Your task to perform on an android device: Is it going to rain tomorrow? Image 0: 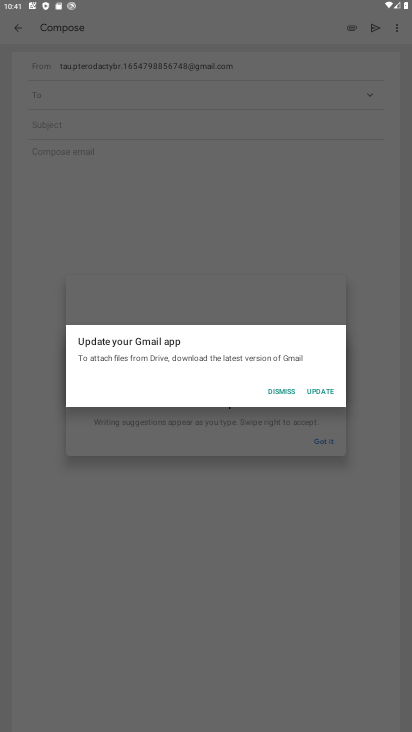
Step 0: press home button
Your task to perform on an android device: Is it going to rain tomorrow? Image 1: 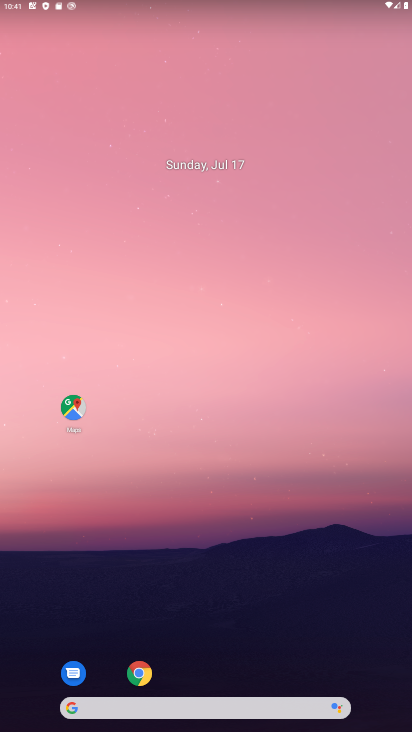
Step 1: click (74, 407)
Your task to perform on an android device: Is it going to rain tomorrow? Image 2: 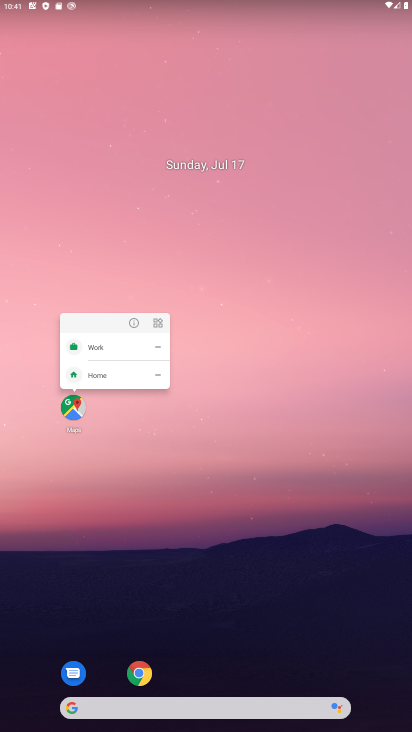
Step 2: click (74, 408)
Your task to perform on an android device: Is it going to rain tomorrow? Image 3: 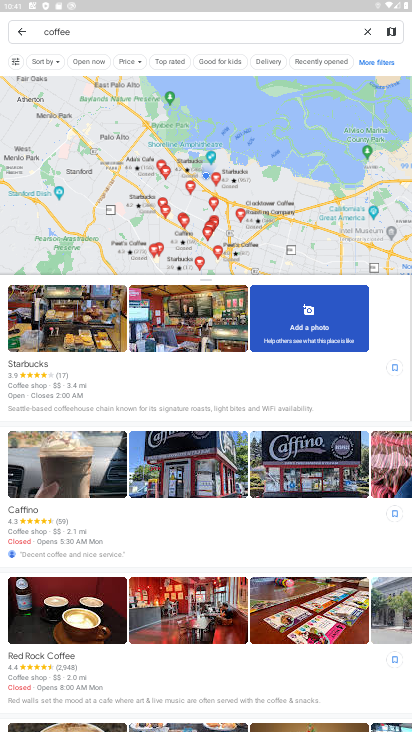
Step 3: click (364, 30)
Your task to perform on an android device: Is it going to rain tomorrow? Image 4: 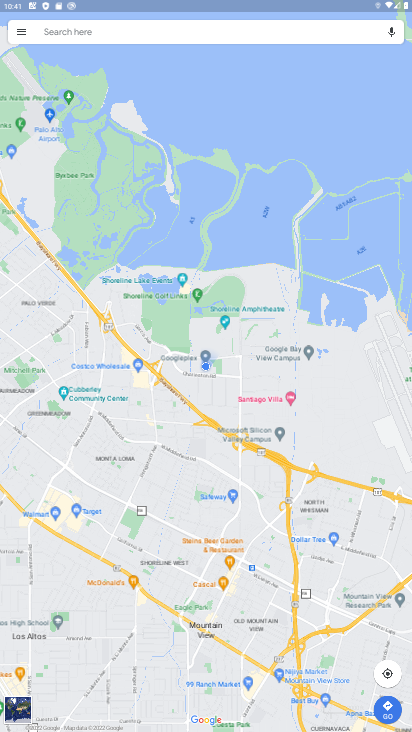
Step 4: click (320, 38)
Your task to perform on an android device: Is it going to rain tomorrow? Image 5: 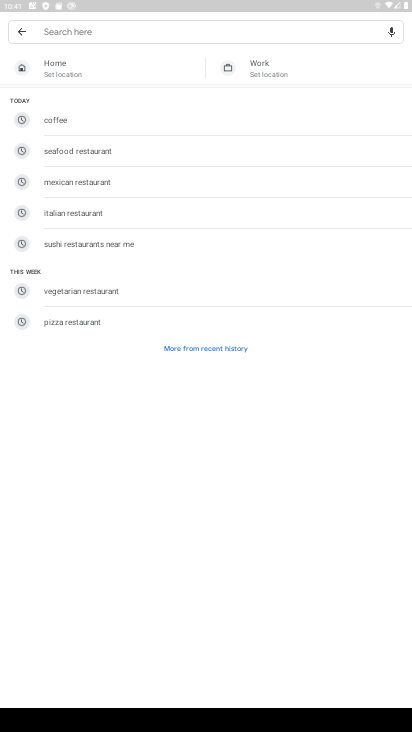
Step 5: type "is it going to rain tomorrow"
Your task to perform on an android device: Is it going to rain tomorrow? Image 6: 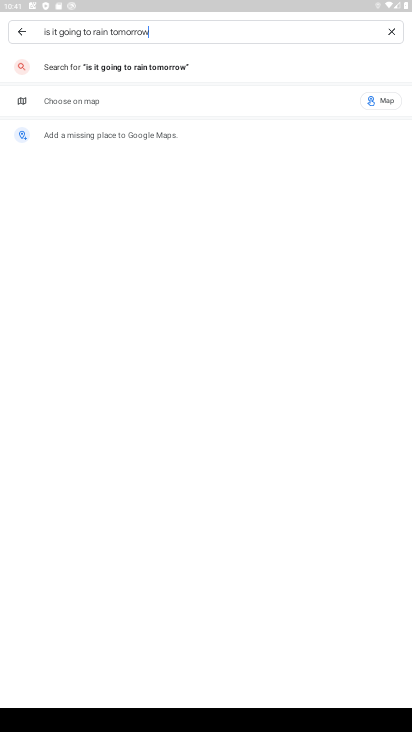
Step 6: task complete